Your task to perform on an android device: toggle wifi Image 0: 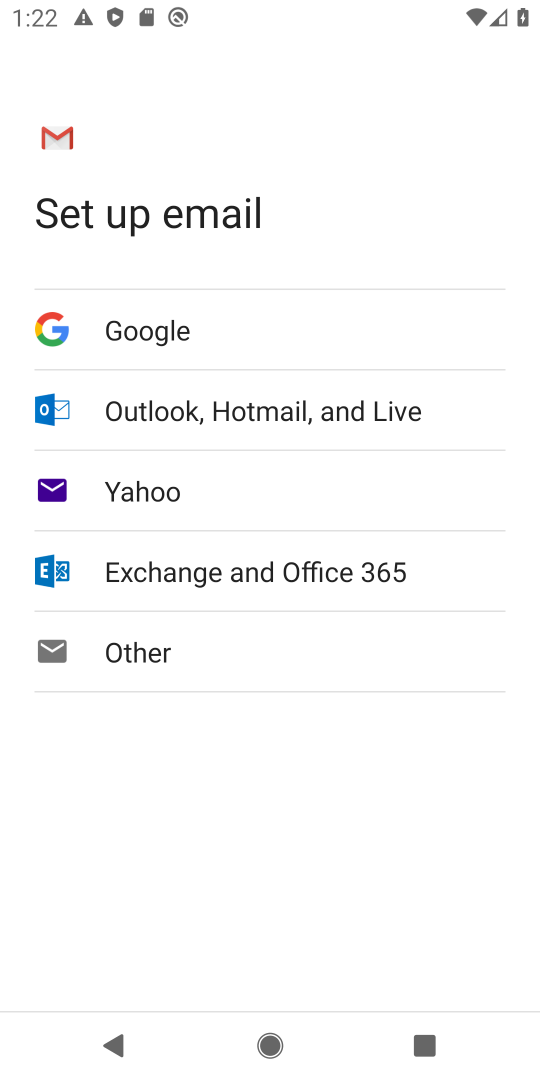
Step 0: press home button
Your task to perform on an android device: toggle wifi Image 1: 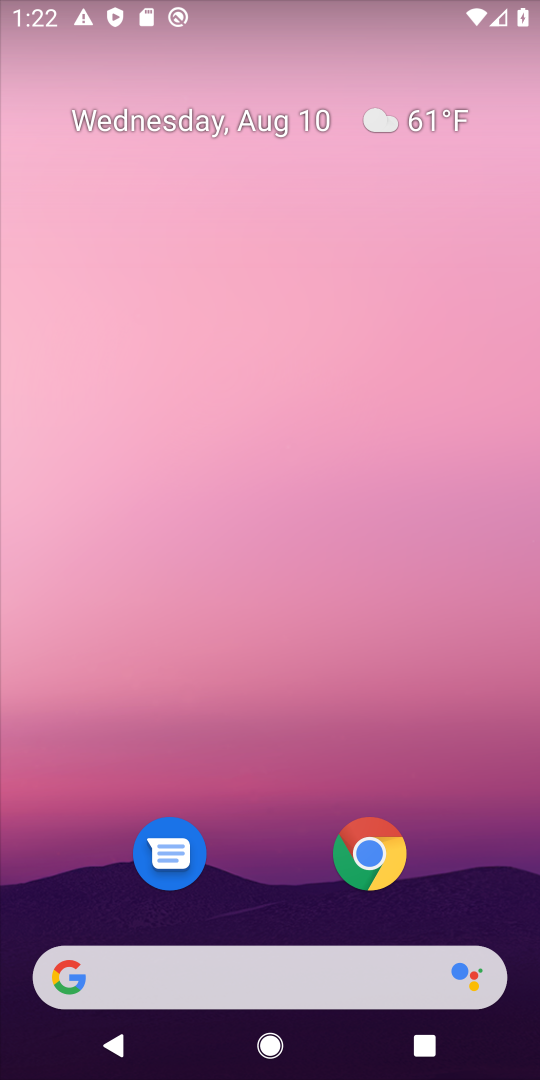
Step 1: drag from (274, 745) to (245, 230)
Your task to perform on an android device: toggle wifi Image 2: 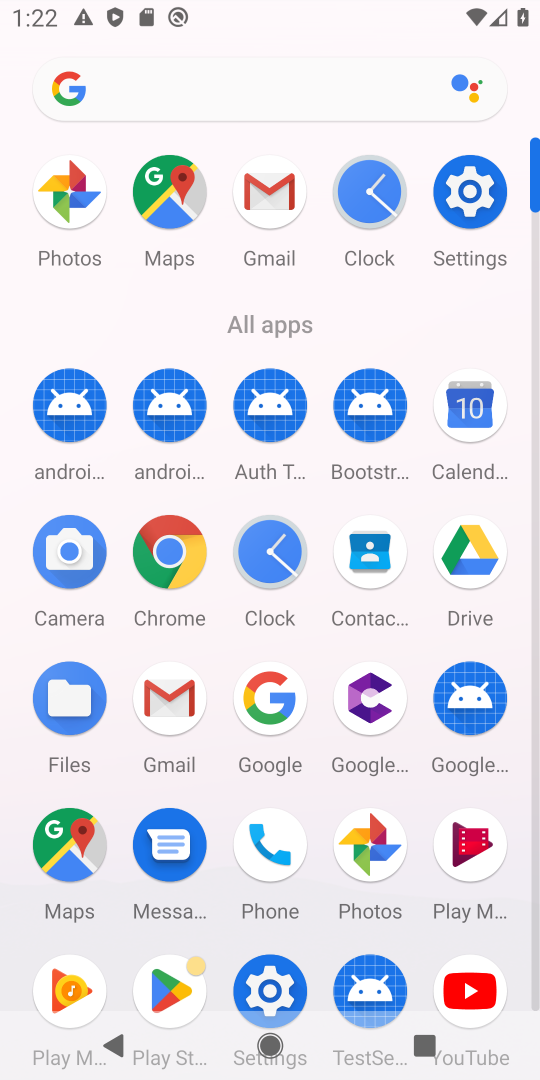
Step 2: click (472, 211)
Your task to perform on an android device: toggle wifi Image 3: 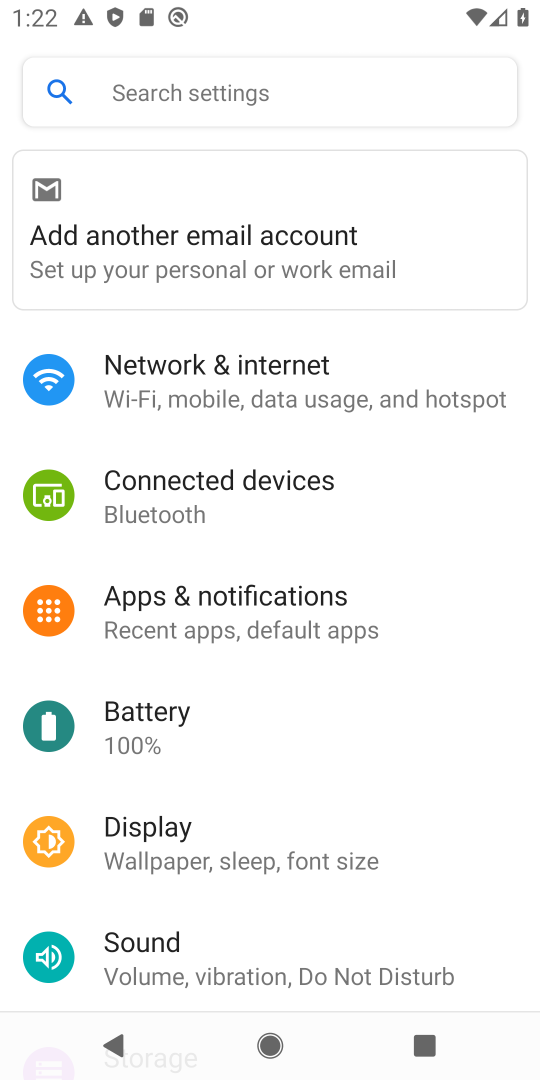
Step 3: click (195, 374)
Your task to perform on an android device: toggle wifi Image 4: 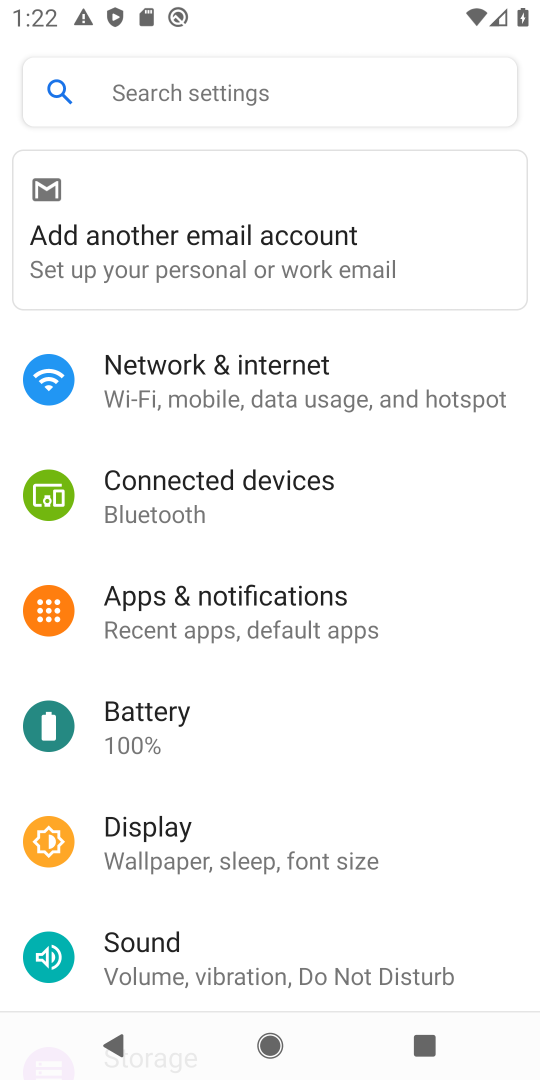
Step 4: click (195, 374)
Your task to perform on an android device: toggle wifi Image 5: 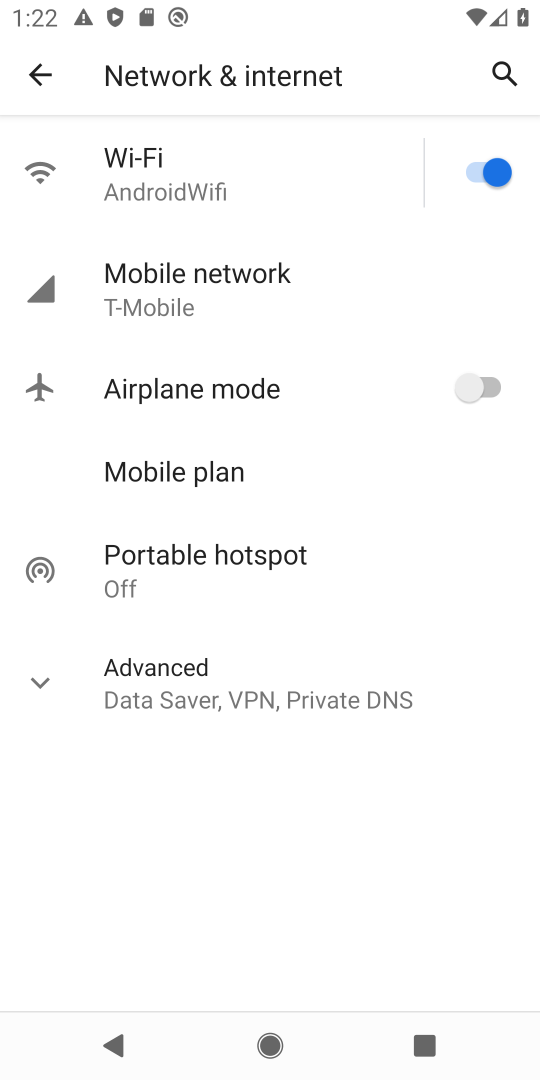
Step 5: task complete